Your task to perform on an android device: turn on priority inbox in the gmail app Image 0: 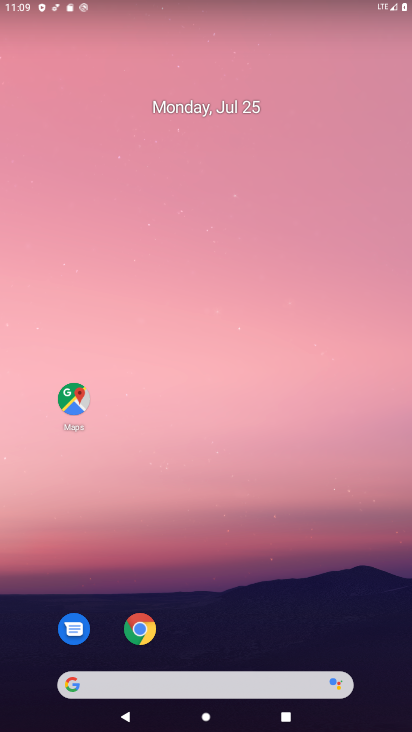
Step 0: drag from (213, 616) to (213, 73)
Your task to perform on an android device: turn on priority inbox in the gmail app Image 1: 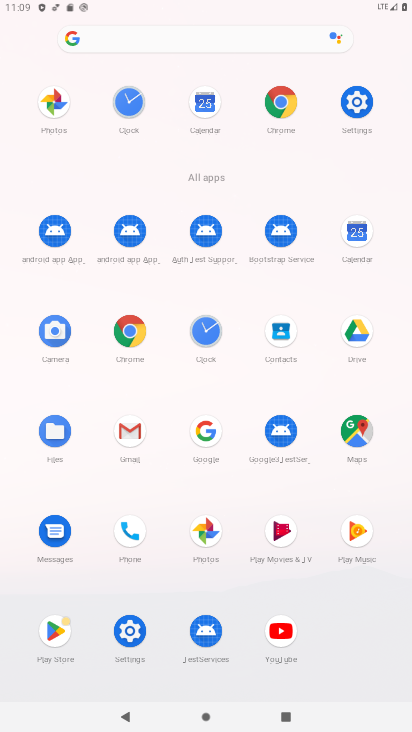
Step 1: click (144, 439)
Your task to perform on an android device: turn on priority inbox in the gmail app Image 2: 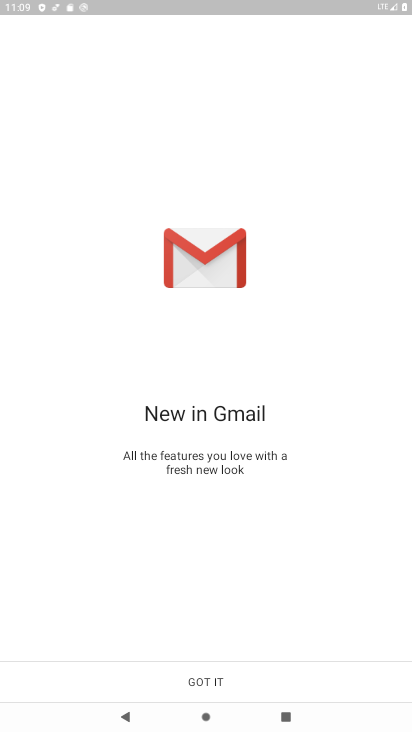
Step 2: click (220, 669)
Your task to perform on an android device: turn on priority inbox in the gmail app Image 3: 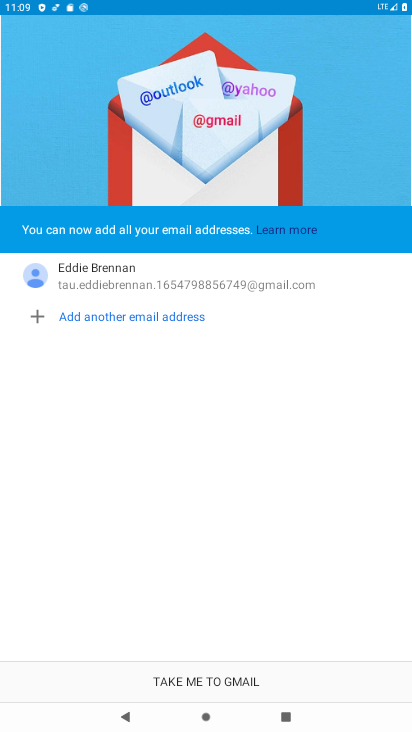
Step 3: click (239, 671)
Your task to perform on an android device: turn on priority inbox in the gmail app Image 4: 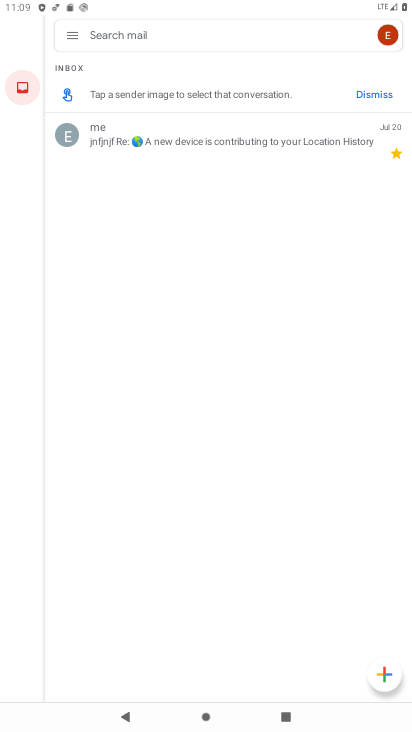
Step 4: click (68, 36)
Your task to perform on an android device: turn on priority inbox in the gmail app Image 5: 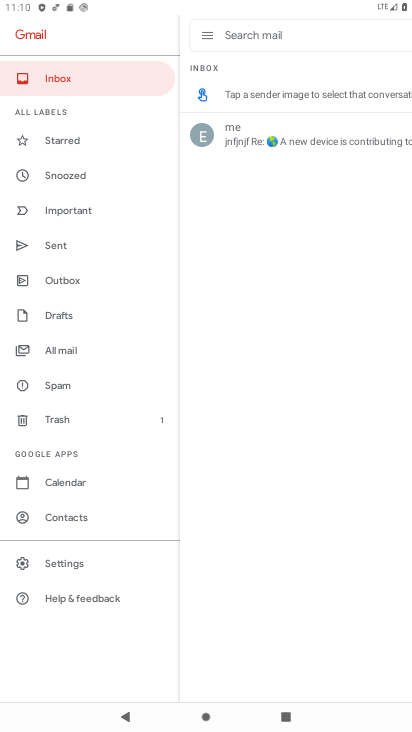
Step 5: click (73, 555)
Your task to perform on an android device: turn on priority inbox in the gmail app Image 6: 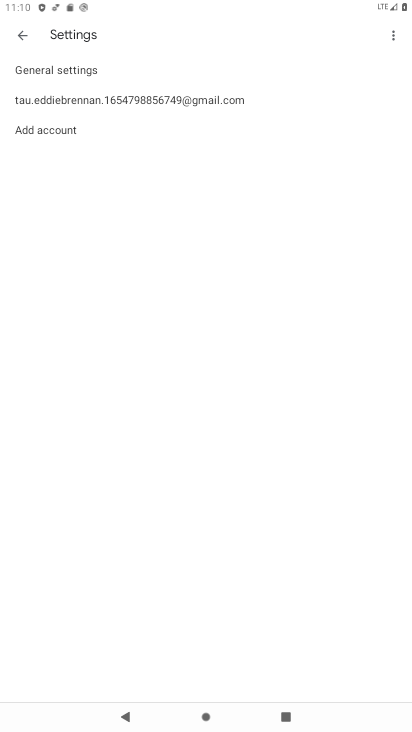
Step 6: click (106, 98)
Your task to perform on an android device: turn on priority inbox in the gmail app Image 7: 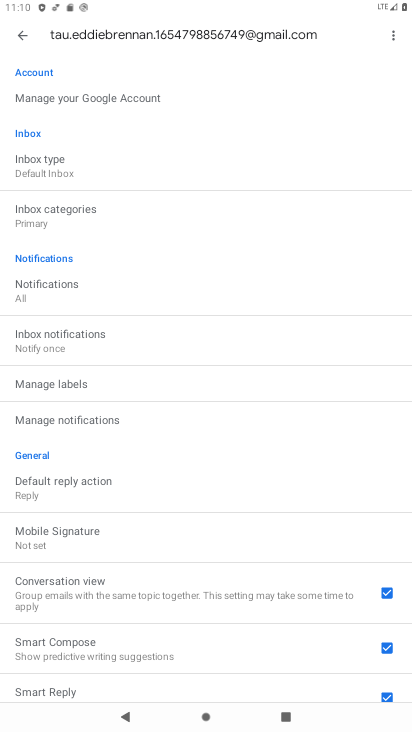
Step 7: click (73, 179)
Your task to perform on an android device: turn on priority inbox in the gmail app Image 8: 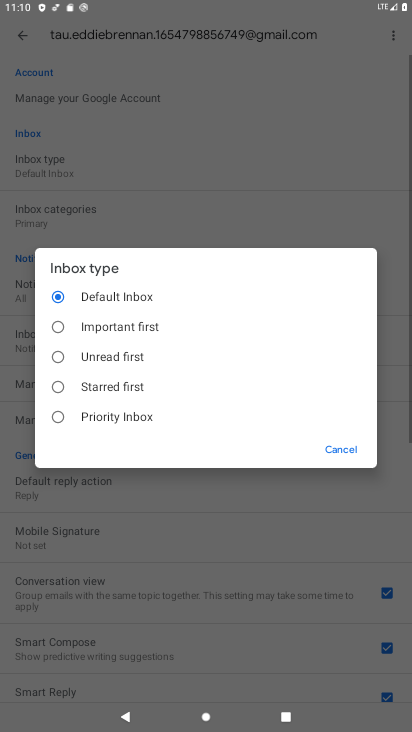
Step 8: click (96, 418)
Your task to perform on an android device: turn on priority inbox in the gmail app Image 9: 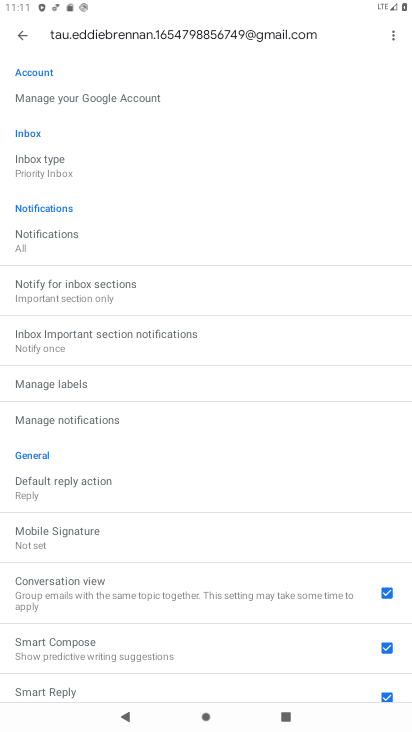
Step 9: task complete